Your task to perform on an android device: Open notification settings Image 0: 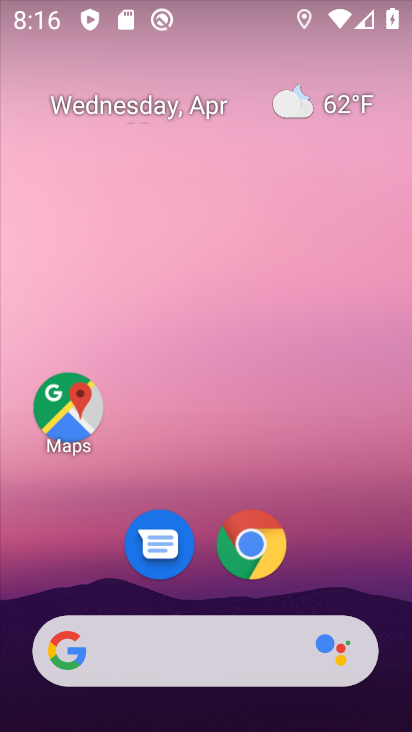
Step 0: drag from (331, 543) to (276, 126)
Your task to perform on an android device: Open notification settings Image 1: 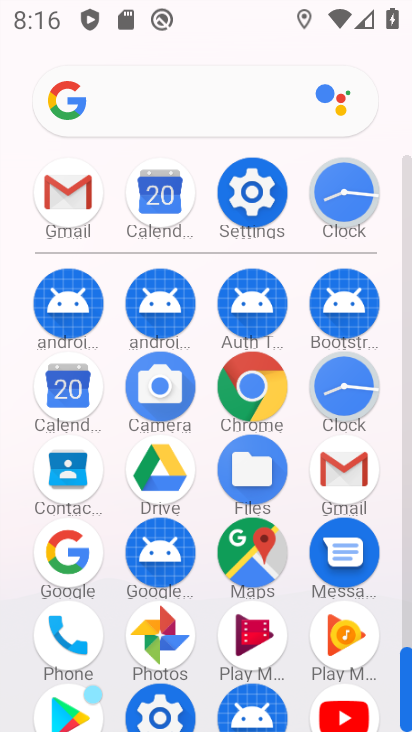
Step 1: click (250, 191)
Your task to perform on an android device: Open notification settings Image 2: 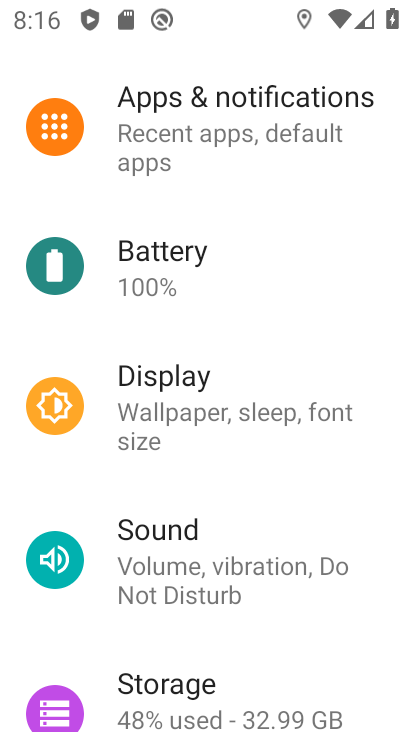
Step 2: click (190, 130)
Your task to perform on an android device: Open notification settings Image 3: 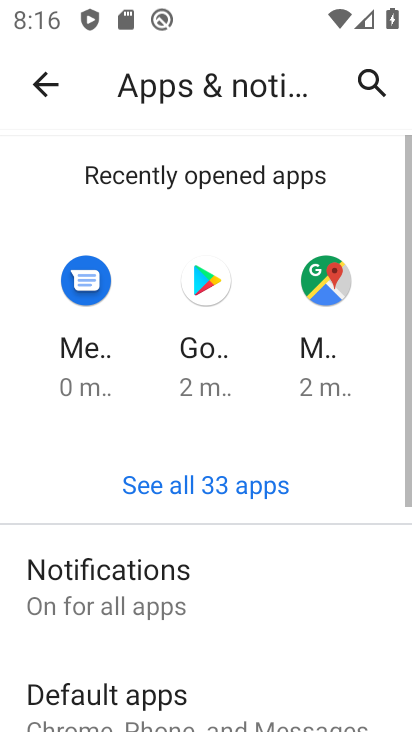
Step 3: click (107, 593)
Your task to perform on an android device: Open notification settings Image 4: 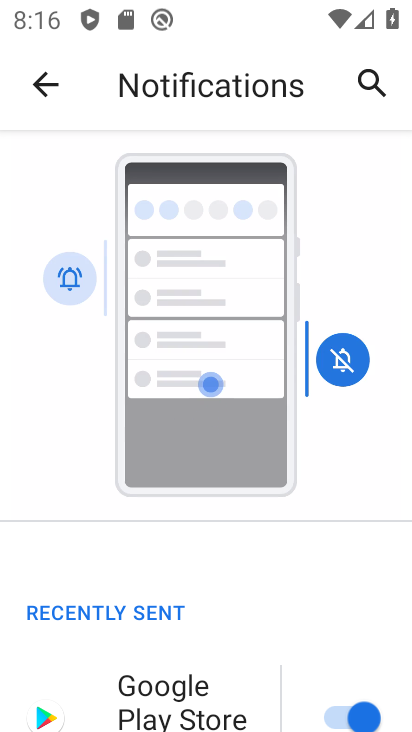
Step 4: drag from (177, 587) to (199, 262)
Your task to perform on an android device: Open notification settings Image 5: 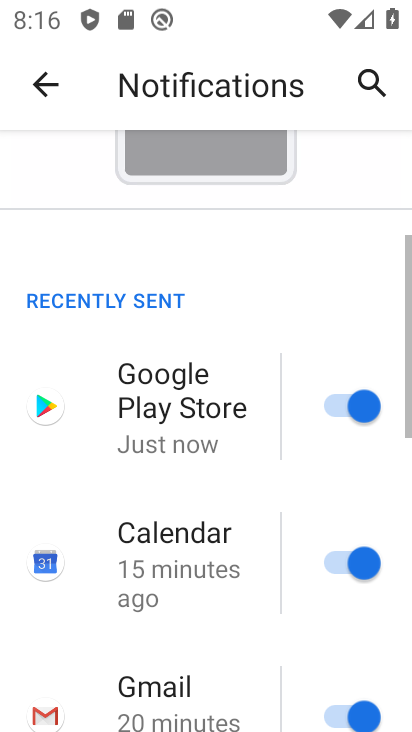
Step 5: drag from (199, 643) to (146, 249)
Your task to perform on an android device: Open notification settings Image 6: 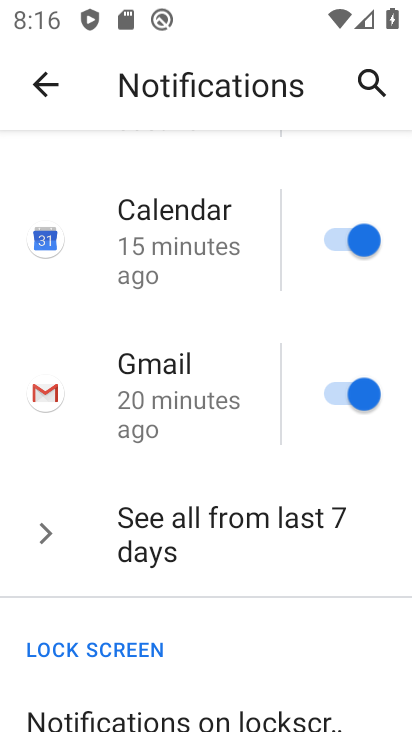
Step 6: drag from (139, 625) to (137, 190)
Your task to perform on an android device: Open notification settings Image 7: 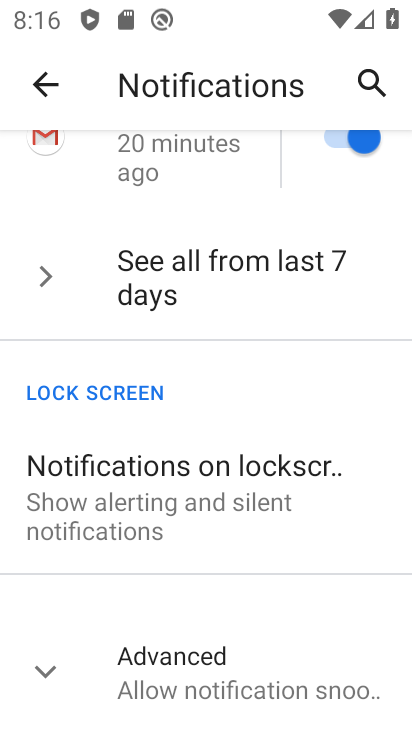
Step 7: drag from (138, 553) to (163, 261)
Your task to perform on an android device: Open notification settings Image 8: 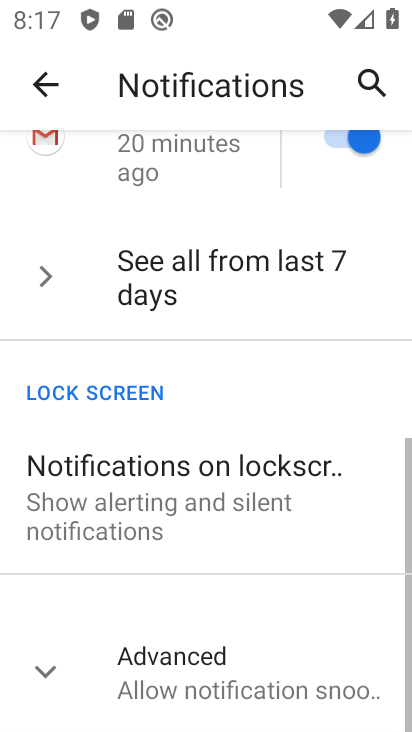
Step 8: click (133, 658)
Your task to perform on an android device: Open notification settings Image 9: 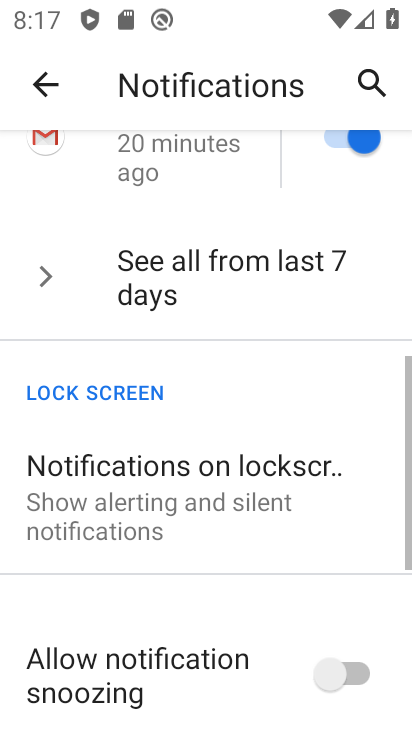
Step 9: task complete